Your task to perform on an android device: turn notification dots off Image 0: 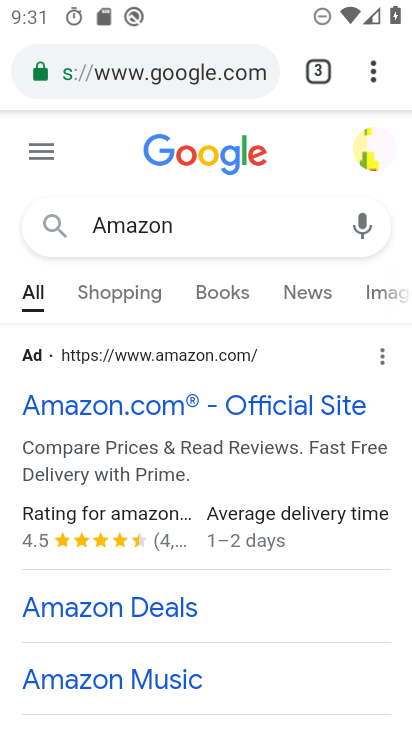
Step 0: press home button
Your task to perform on an android device: turn notification dots off Image 1: 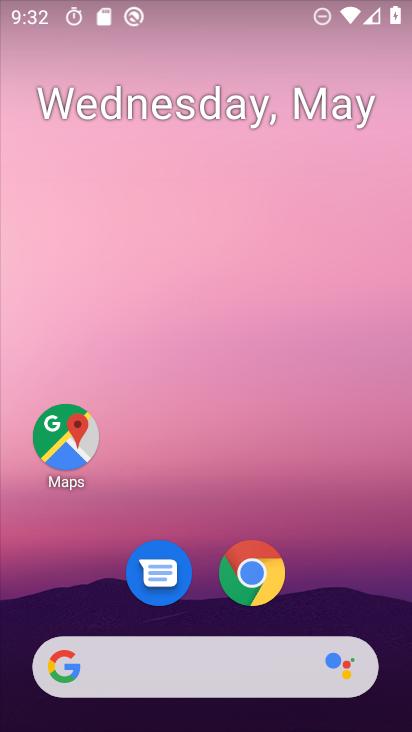
Step 1: drag from (401, 708) to (363, 242)
Your task to perform on an android device: turn notification dots off Image 2: 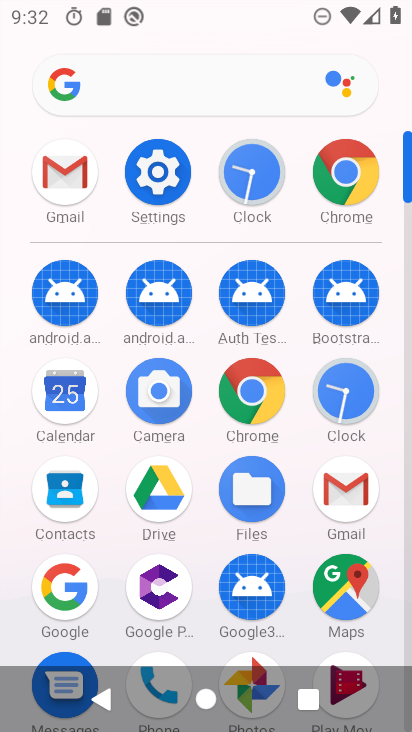
Step 2: click (175, 173)
Your task to perform on an android device: turn notification dots off Image 3: 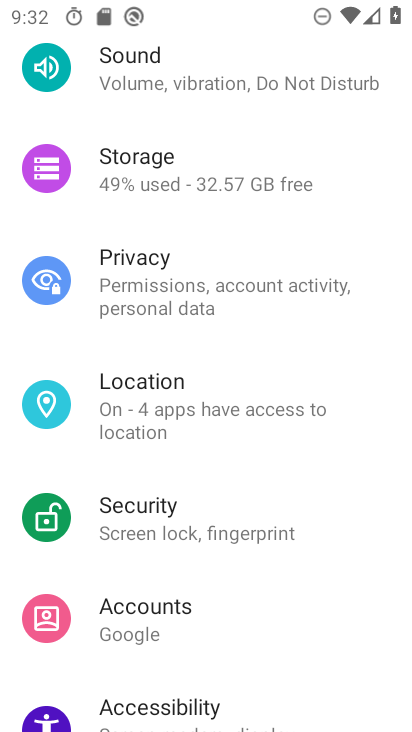
Step 3: drag from (238, 78) to (276, 494)
Your task to perform on an android device: turn notification dots off Image 4: 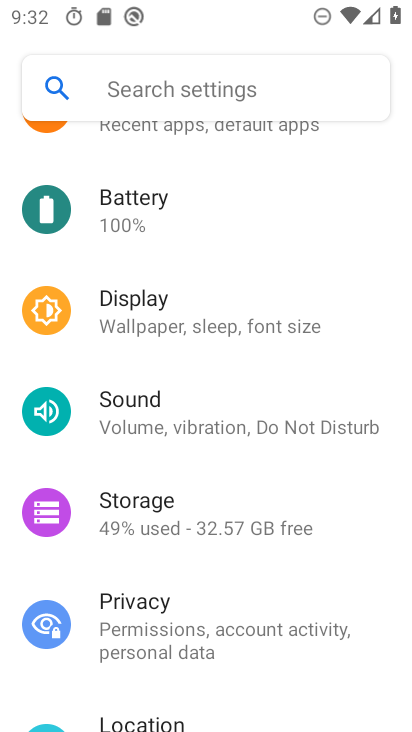
Step 4: drag from (328, 137) to (324, 549)
Your task to perform on an android device: turn notification dots off Image 5: 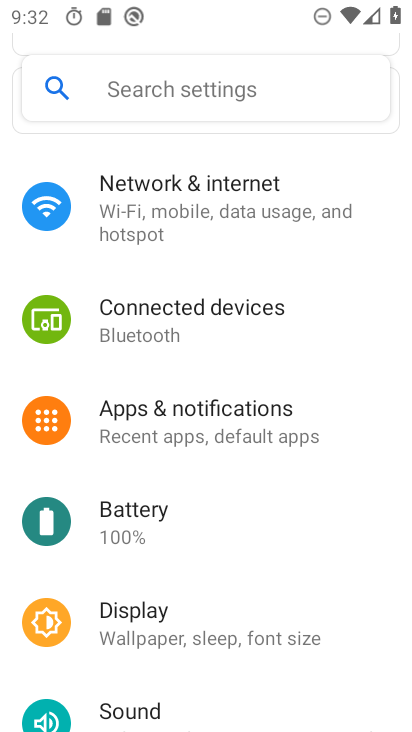
Step 5: click (201, 406)
Your task to perform on an android device: turn notification dots off Image 6: 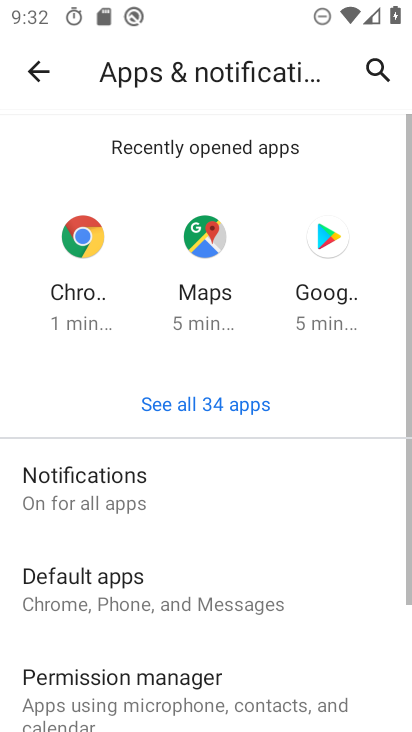
Step 6: click (95, 498)
Your task to perform on an android device: turn notification dots off Image 7: 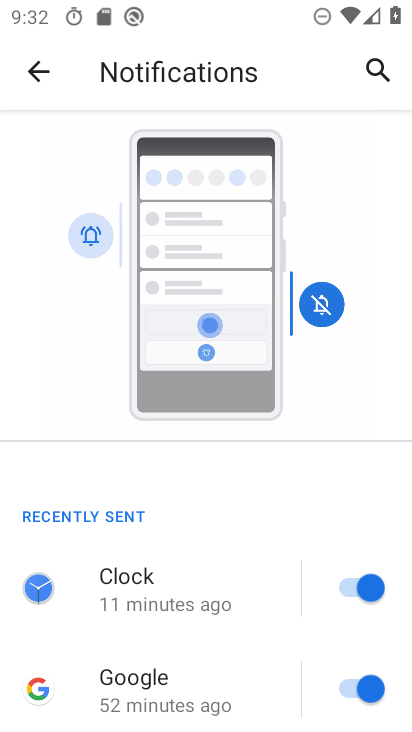
Step 7: drag from (257, 529) to (253, 387)
Your task to perform on an android device: turn notification dots off Image 8: 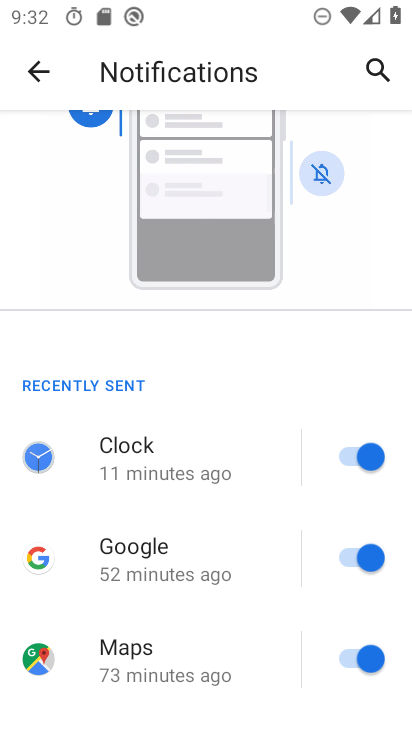
Step 8: drag from (280, 699) to (268, 214)
Your task to perform on an android device: turn notification dots off Image 9: 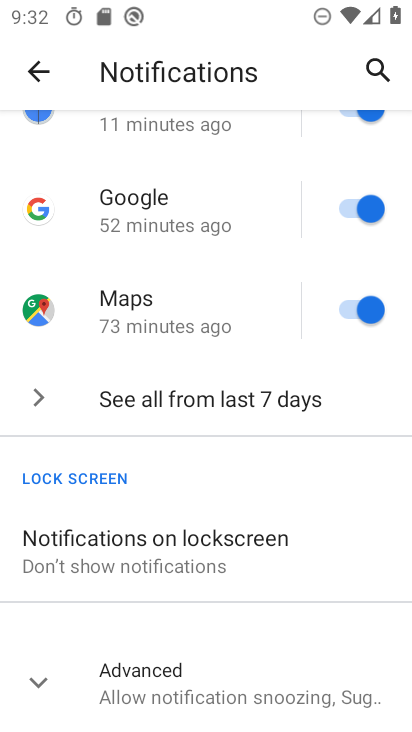
Step 9: click (32, 682)
Your task to perform on an android device: turn notification dots off Image 10: 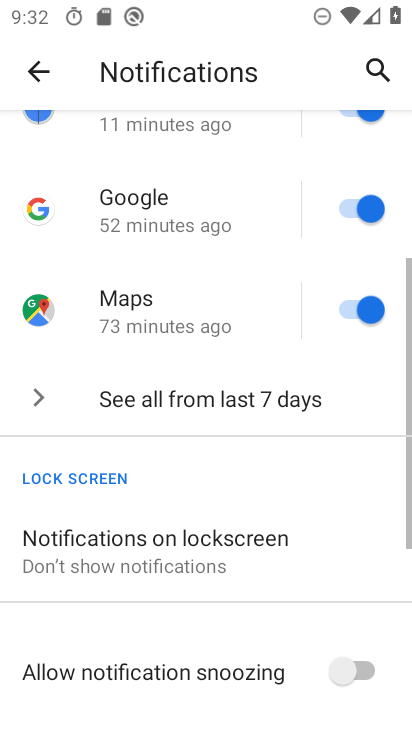
Step 10: drag from (282, 639) to (303, 206)
Your task to perform on an android device: turn notification dots off Image 11: 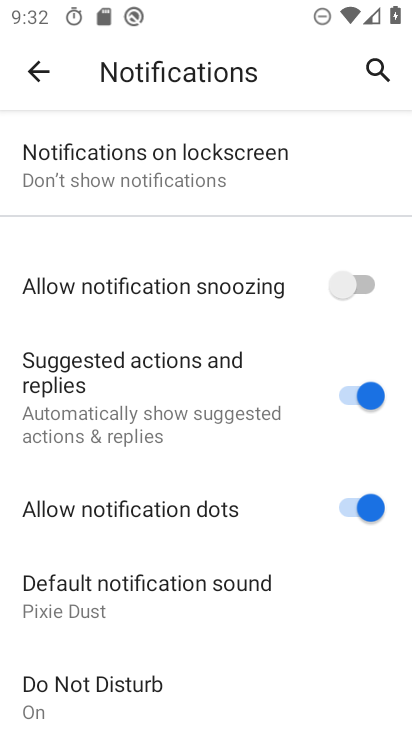
Step 11: click (338, 510)
Your task to perform on an android device: turn notification dots off Image 12: 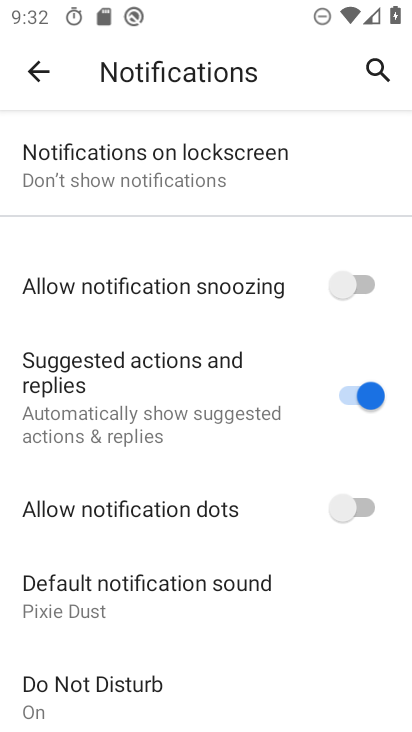
Step 12: task complete